Your task to perform on an android device: Go to Android settings Image 0: 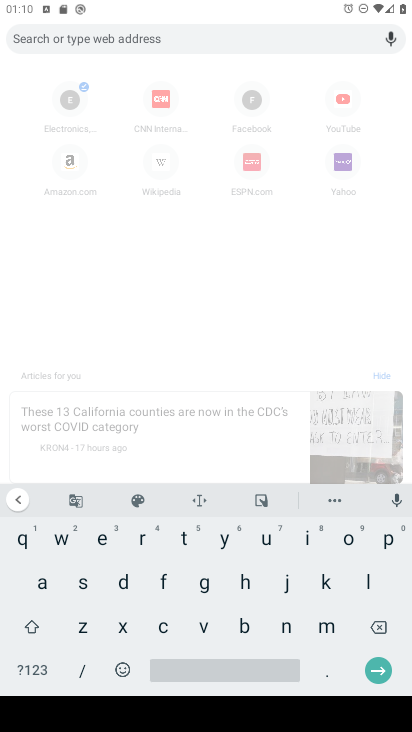
Step 0: press home button
Your task to perform on an android device: Go to Android settings Image 1: 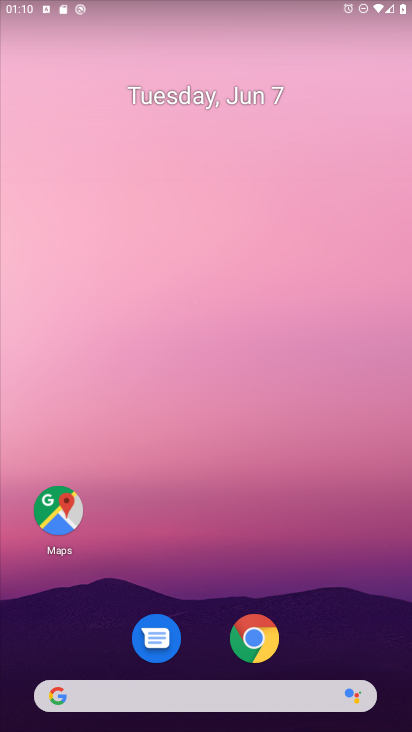
Step 1: drag from (293, 683) to (329, 313)
Your task to perform on an android device: Go to Android settings Image 2: 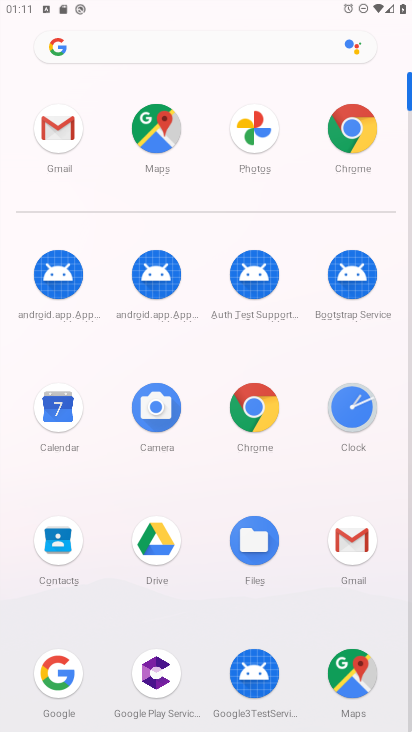
Step 2: drag from (117, 598) to (130, 451)
Your task to perform on an android device: Go to Android settings Image 3: 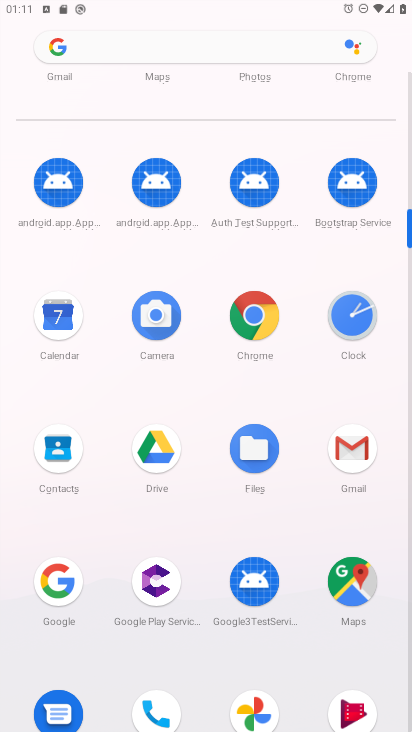
Step 3: drag from (225, 632) to (222, 503)
Your task to perform on an android device: Go to Android settings Image 4: 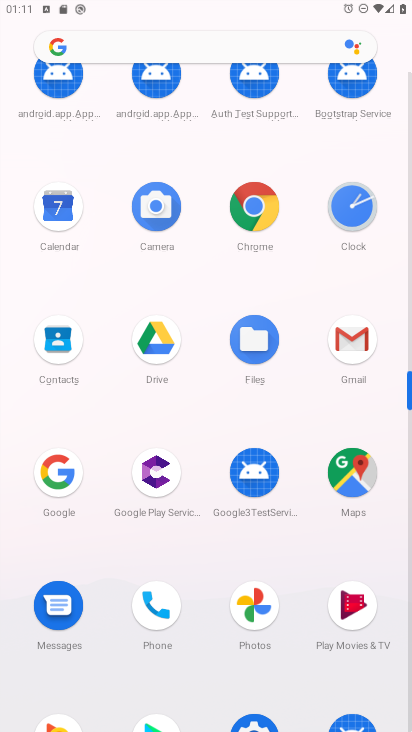
Step 4: click (254, 711)
Your task to perform on an android device: Go to Android settings Image 5: 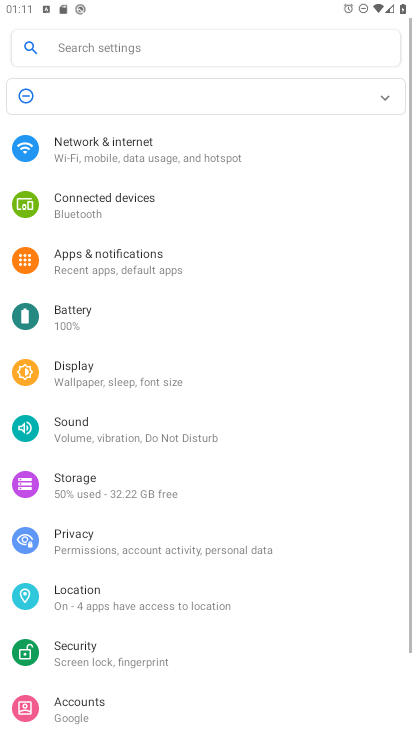
Step 5: click (128, 39)
Your task to perform on an android device: Go to Android settings Image 6: 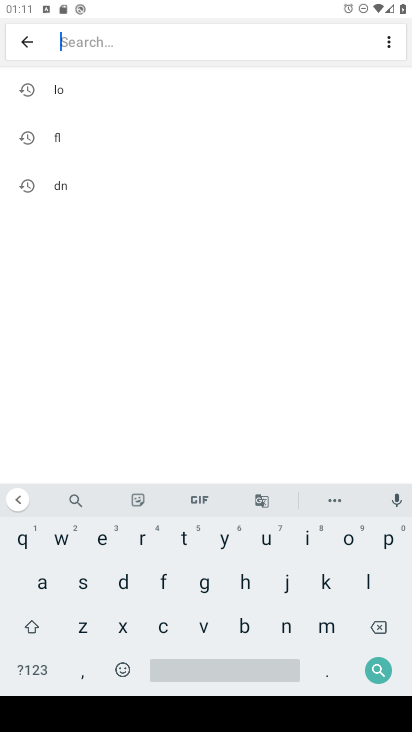
Step 6: click (43, 584)
Your task to perform on an android device: Go to Android settings Image 7: 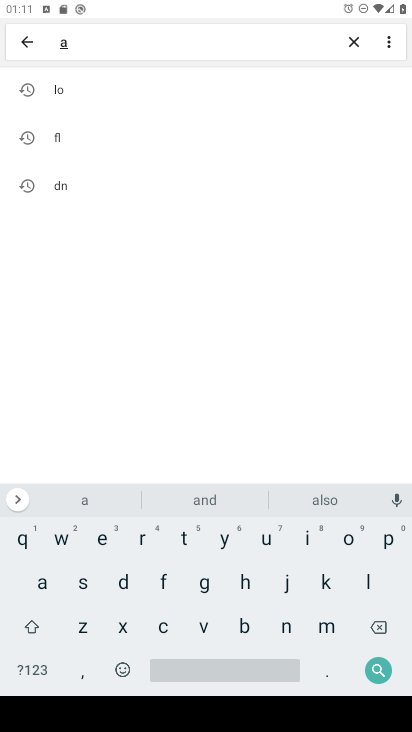
Step 7: click (286, 623)
Your task to perform on an android device: Go to Android settings Image 8: 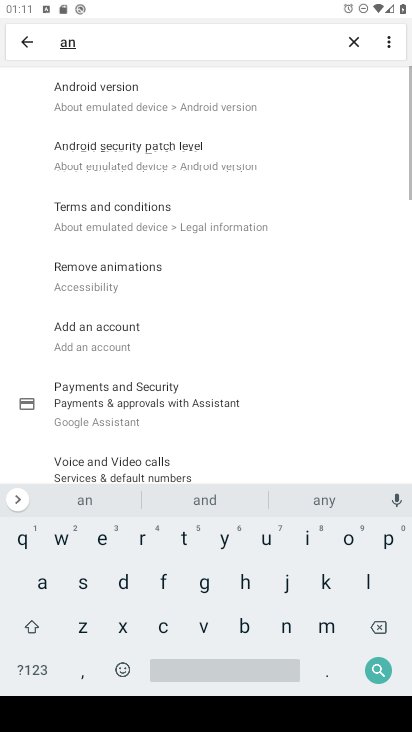
Step 8: click (138, 97)
Your task to perform on an android device: Go to Android settings Image 9: 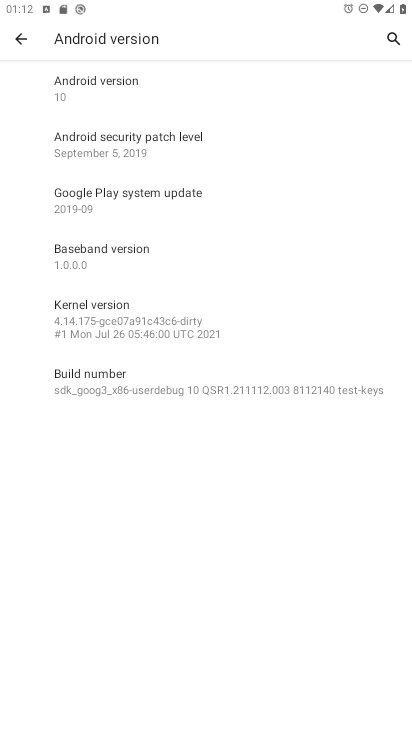
Step 9: click (123, 104)
Your task to perform on an android device: Go to Android settings Image 10: 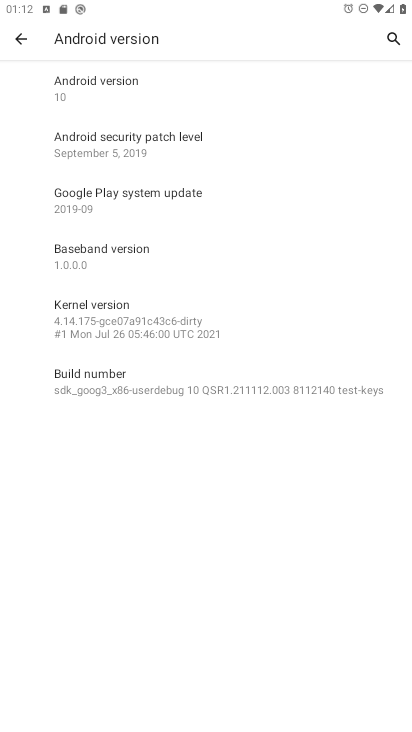
Step 10: task complete